Your task to perform on an android device: Go to Yahoo.com Image 0: 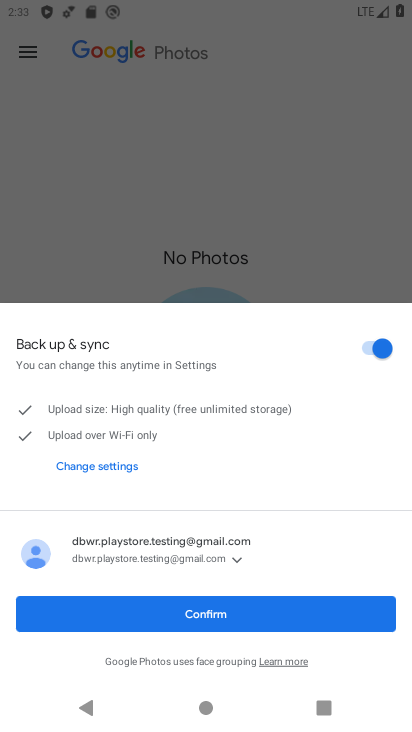
Step 0: press home button
Your task to perform on an android device: Go to Yahoo.com Image 1: 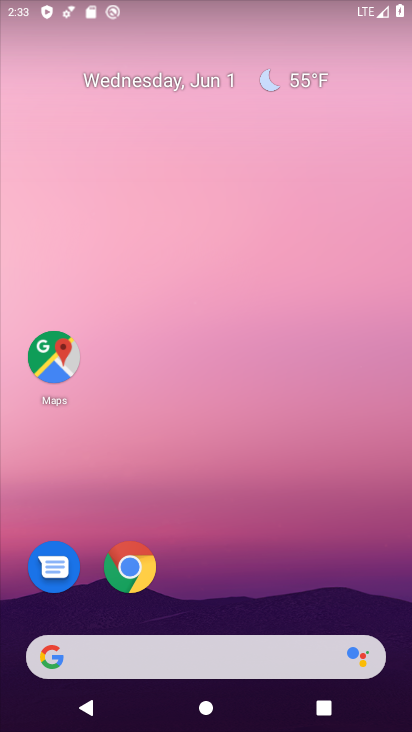
Step 1: click (133, 566)
Your task to perform on an android device: Go to Yahoo.com Image 2: 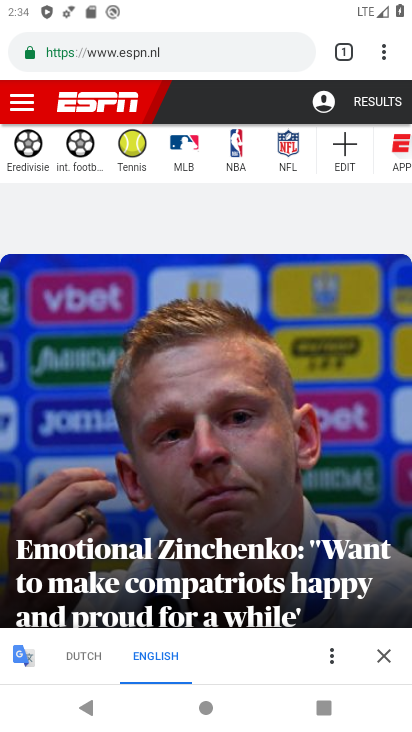
Step 2: click (351, 61)
Your task to perform on an android device: Go to Yahoo.com Image 3: 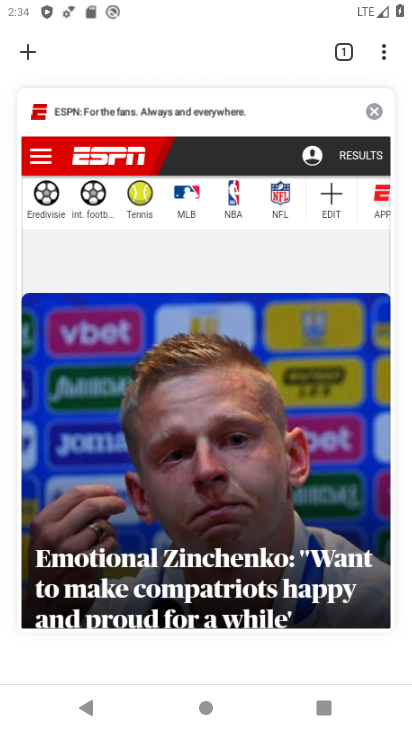
Step 3: click (374, 118)
Your task to perform on an android device: Go to Yahoo.com Image 4: 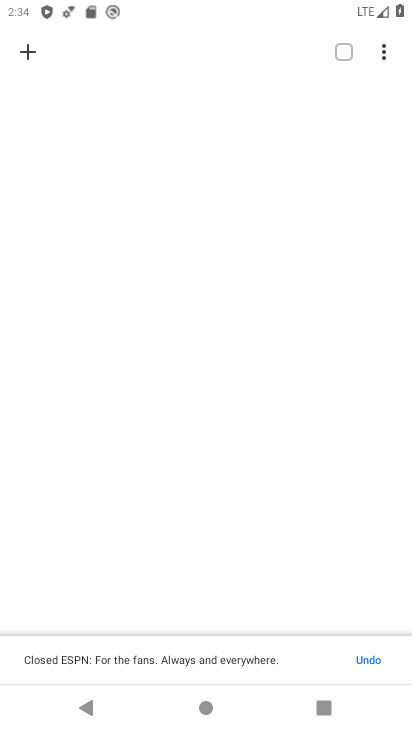
Step 4: click (29, 60)
Your task to perform on an android device: Go to Yahoo.com Image 5: 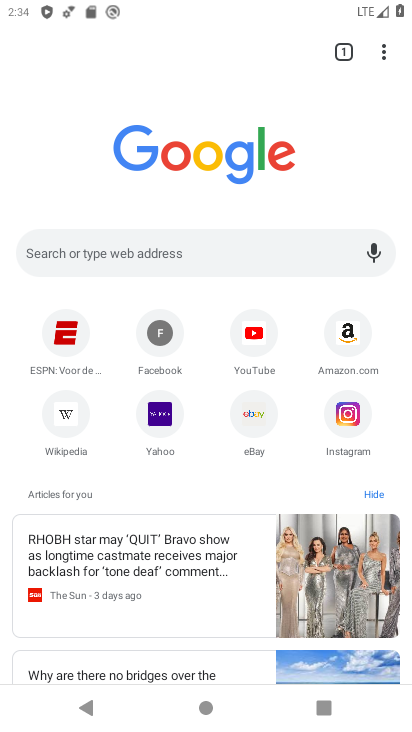
Step 5: click (155, 426)
Your task to perform on an android device: Go to Yahoo.com Image 6: 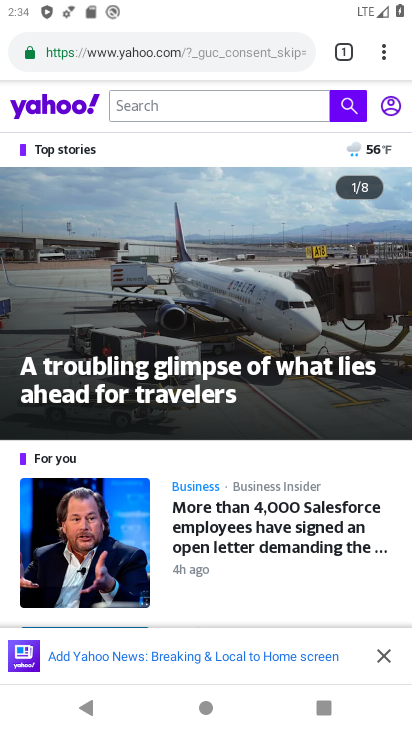
Step 6: task complete